Your task to perform on an android device: Check the weather Image 0: 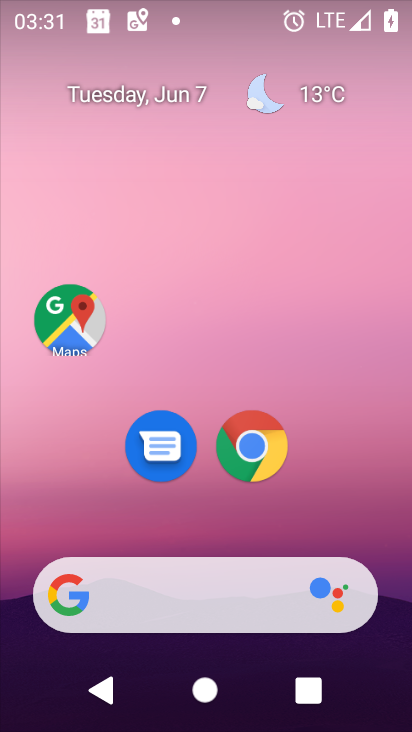
Step 0: click (272, 588)
Your task to perform on an android device: Check the weather Image 1: 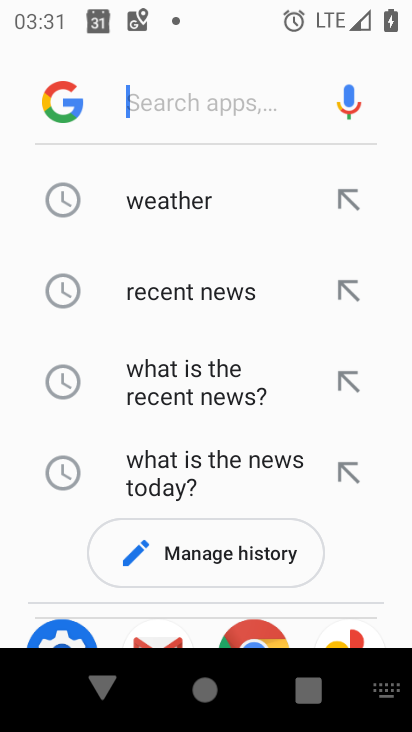
Step 1: click (246, 205)
Your task to perform on an android device: Check the weather Image 2: 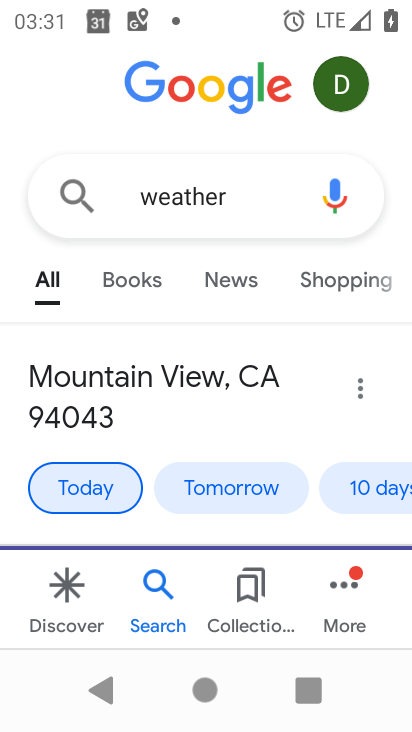
Step 2: task complete